Your task to perform on an android device: change the clock display to show seconds Image 0: 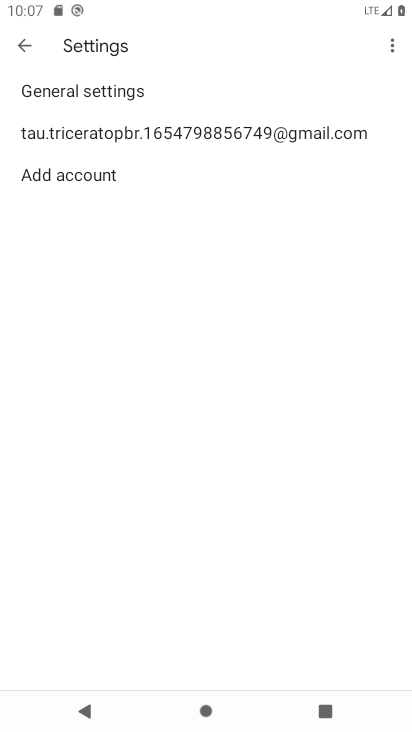
Step 0: press home button
Your task to perform on an android device: change the clock display to show seconds Image 1: 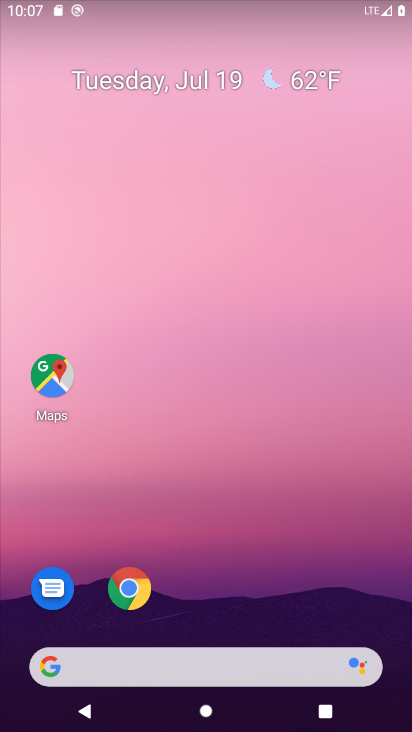
Step 1: drag from (177, 625) to (200, 176)
Your task to perform on an android device: change the clock display to show seconds Image 2: 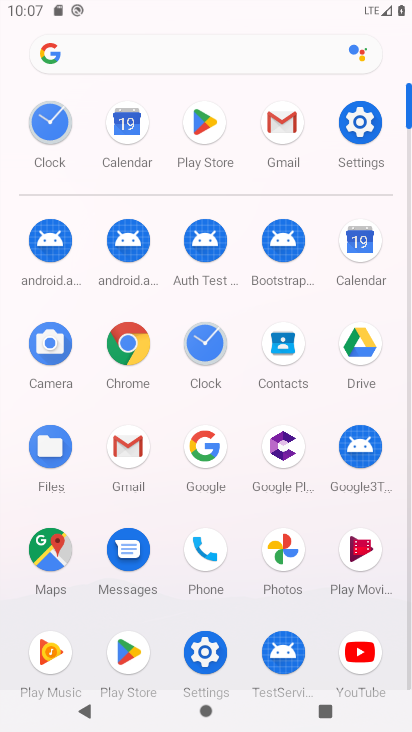
Step 2: click (197, 345)
Your task to perform on an android device: change the clock display to show seconds Image 3: 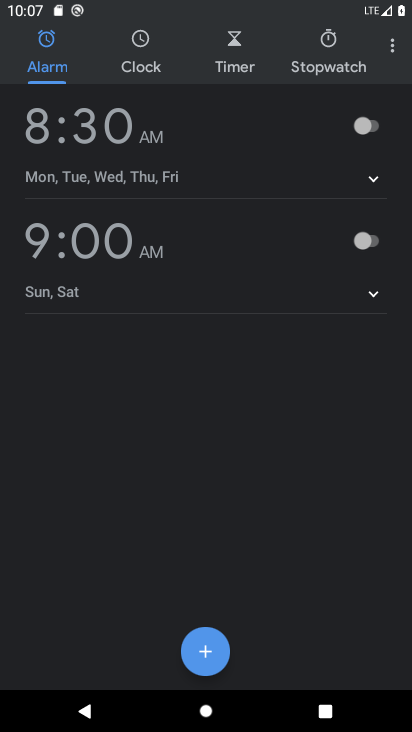
Step 3: click (398, 56)
Your task to perform on an android device: change the clock display to show seconds Image 4: 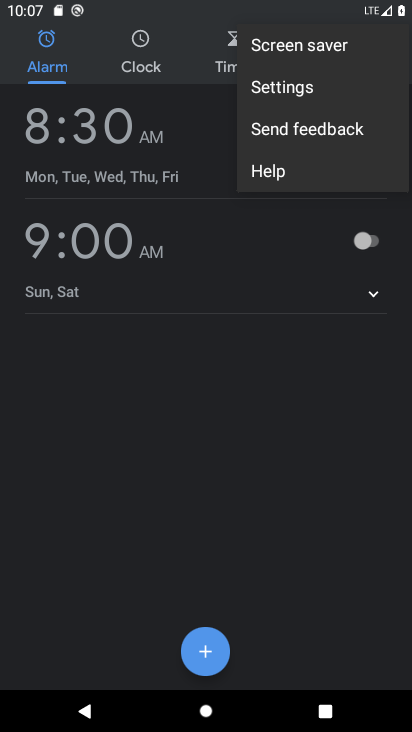
Step 4: click (300, 85)
Your task to perform on an android device: change the clock display to show seconds Image 5: 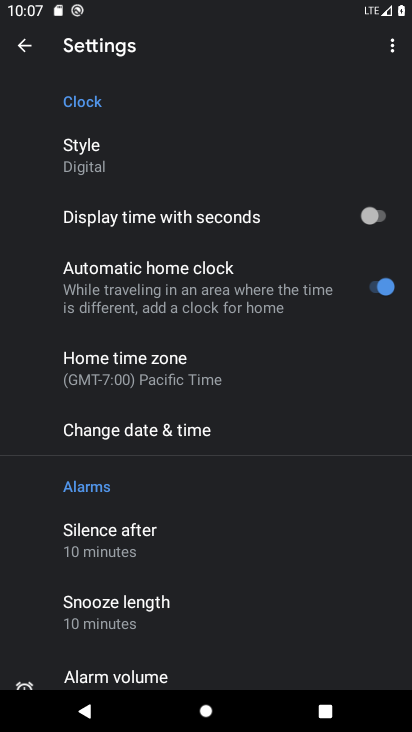
Step 5: click (388, 222)
Your task to perform on an android device: change the clock display to show seconds Image 6: 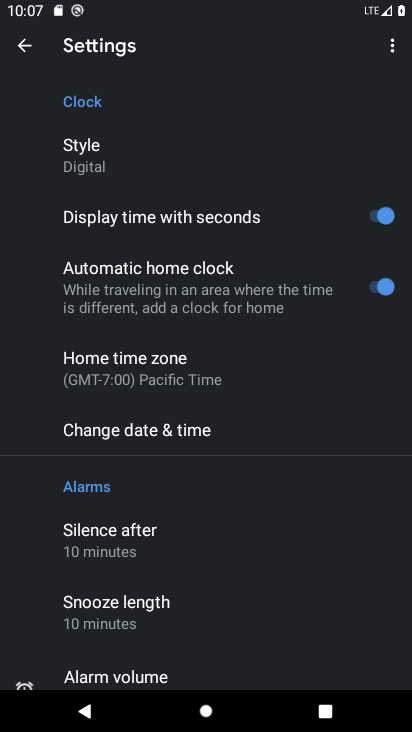
Step 6: task complete